Your task to perform on an android device: turn notification dots off Image 0: 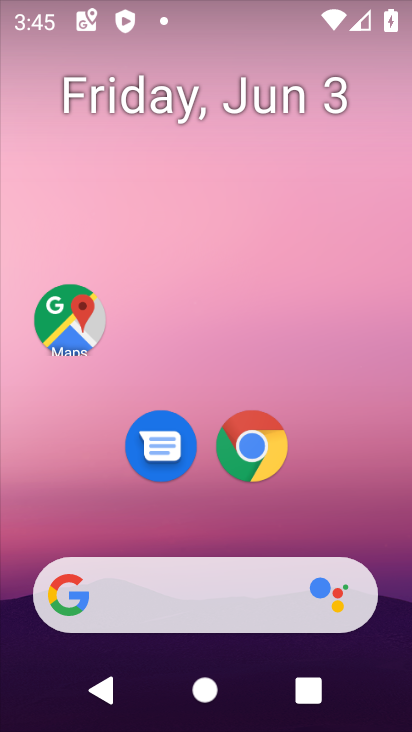
Step 0: task complete